Your task to perform on an android device: Open Reddit.com Image 0: 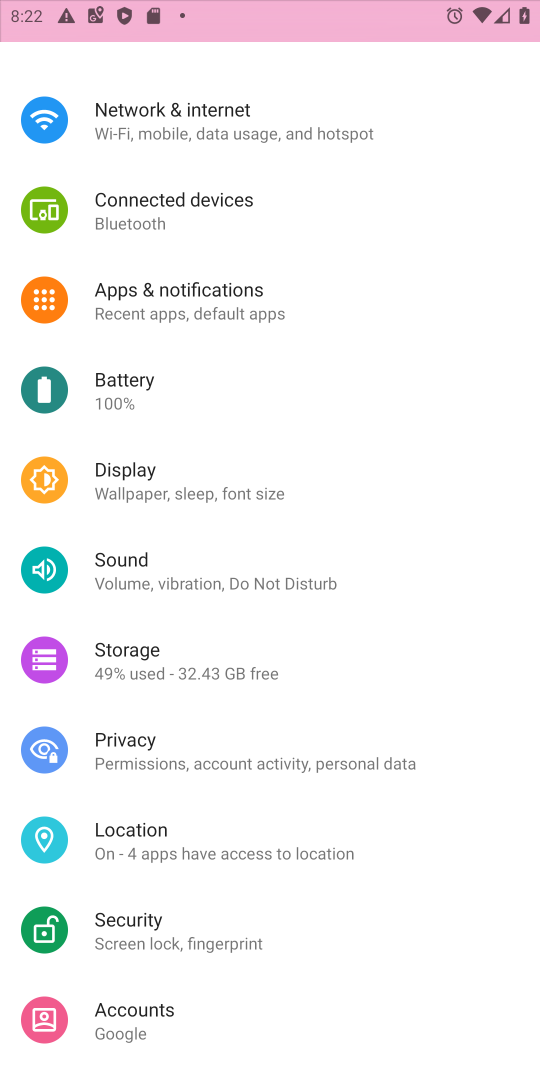
Step 0: press home button
Your task to perform on an android device: Open Reddit.com Image 1: 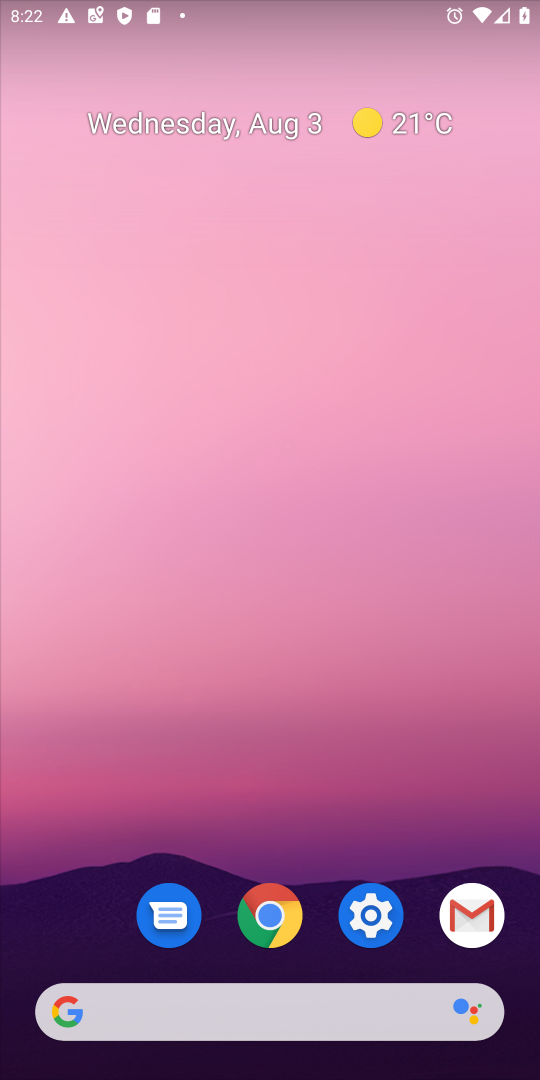
Step 1: click (273, 911)
Your task to perform on an android device: Open Reddit.com Image 2: 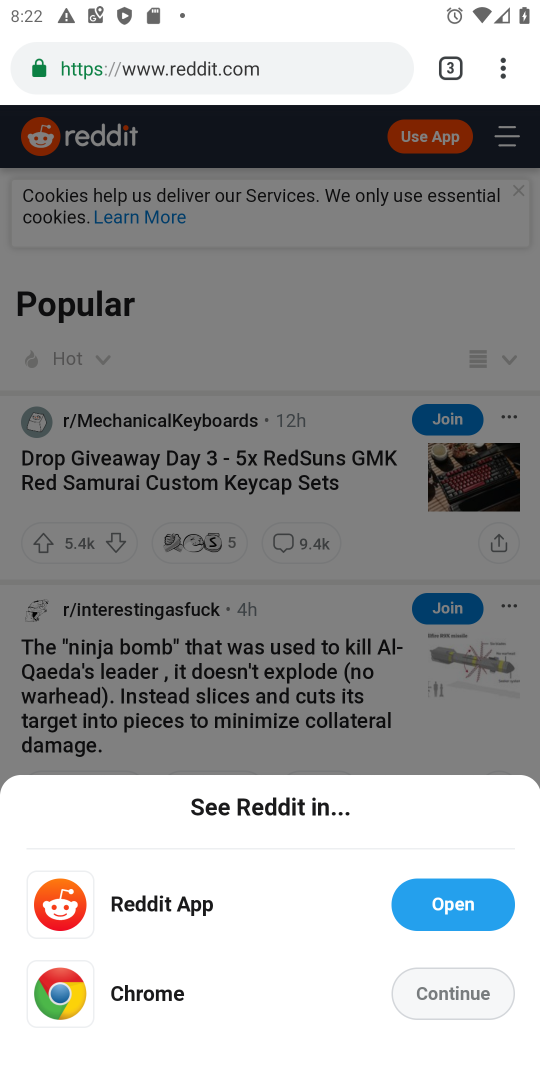
Step 2: click (223, 973)
Your task to perform on an android device: Open Reddit.com Image 3: 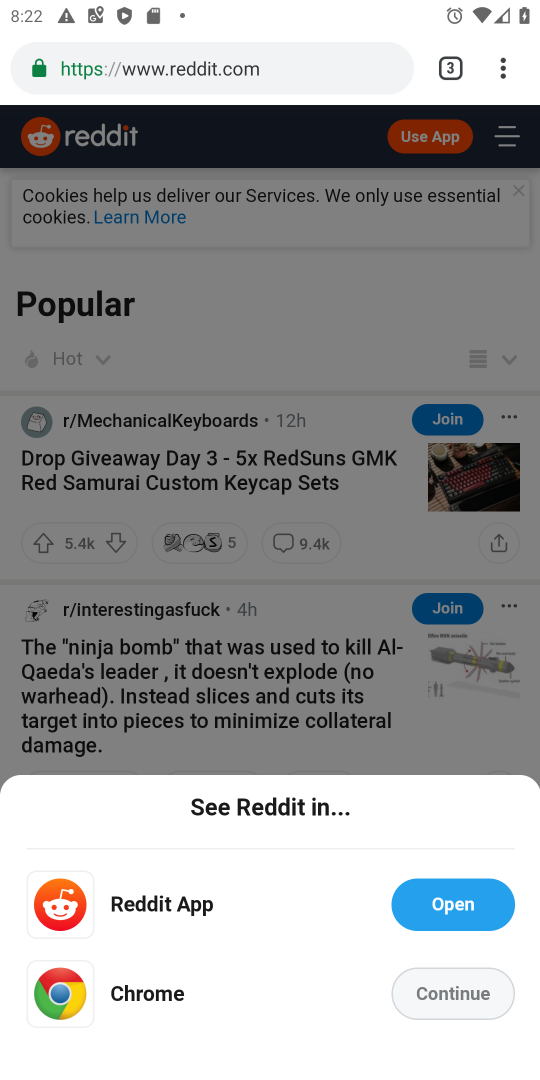
Step 3: click (428, 1001)
Your task to perform on an android device: Open Reddit.com Image 4: 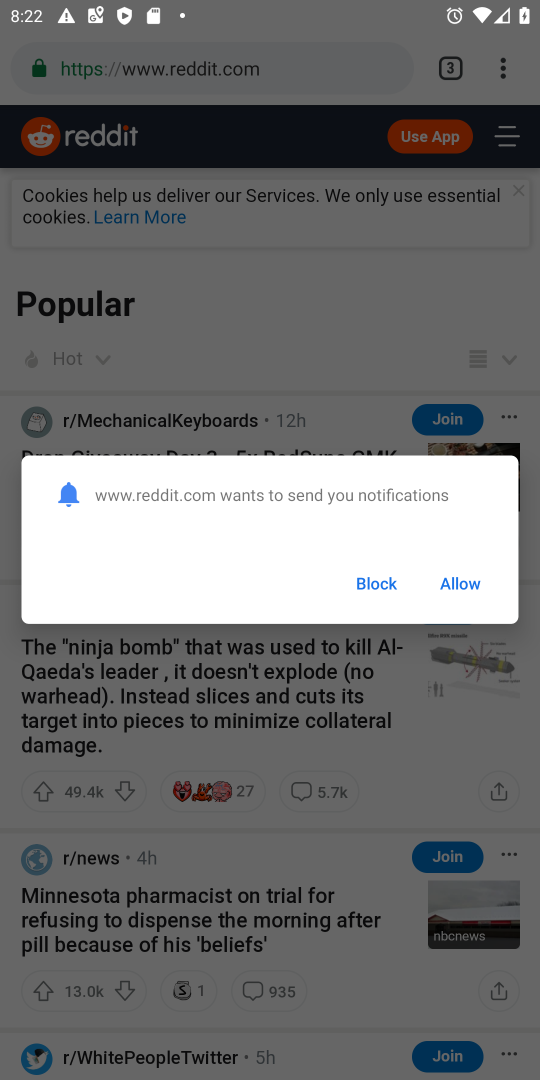
Step 4: click (376, 582)
Your task to perform on an android device: Open Reddit.com Image 5: 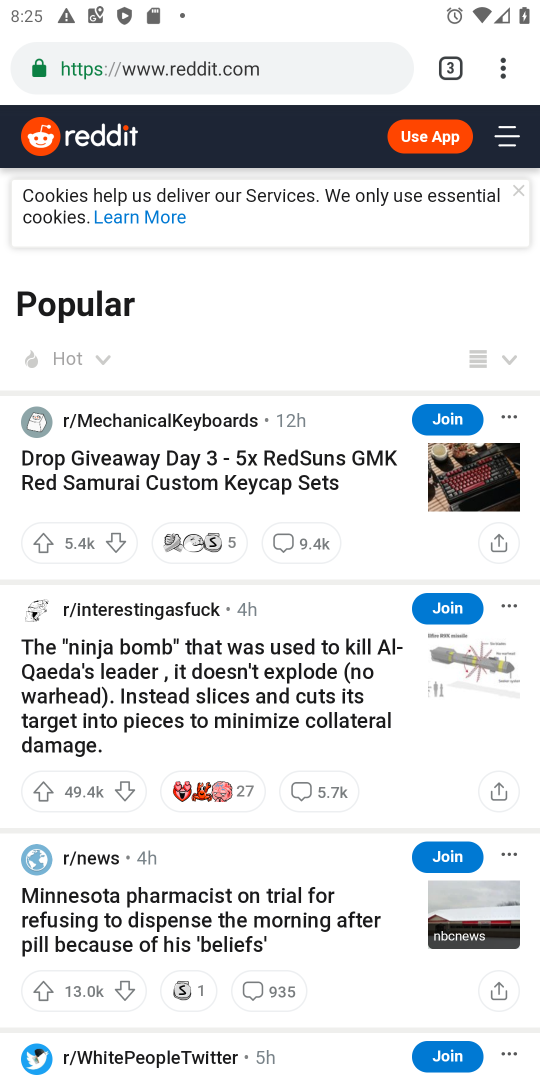
Step 5: task complete